Your task to perform on an android device: open sync settings in chrome Image 0: 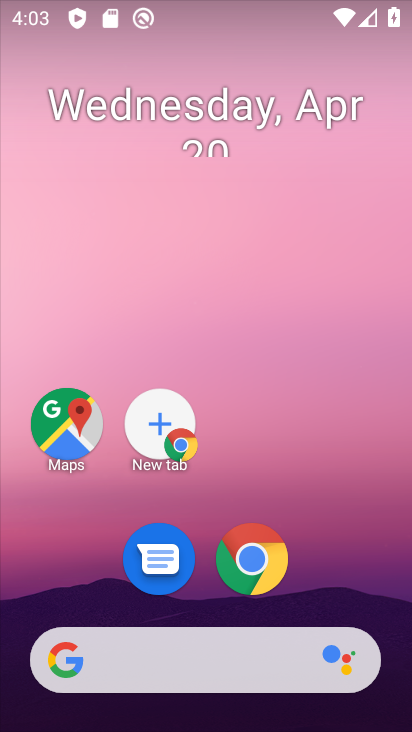
Step 0: click (260, 550)
Your task to perform on an android device: open sync settings in chrome Image 1: 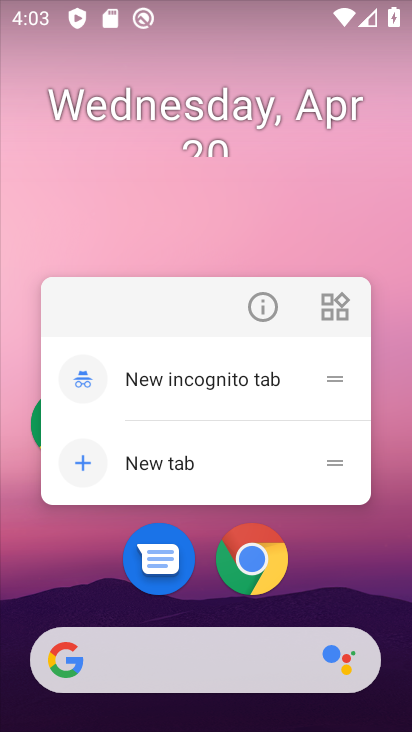
Step 1: click (260, 550)
Your task to perform on an android device: open sync settings in chrome Image 2: 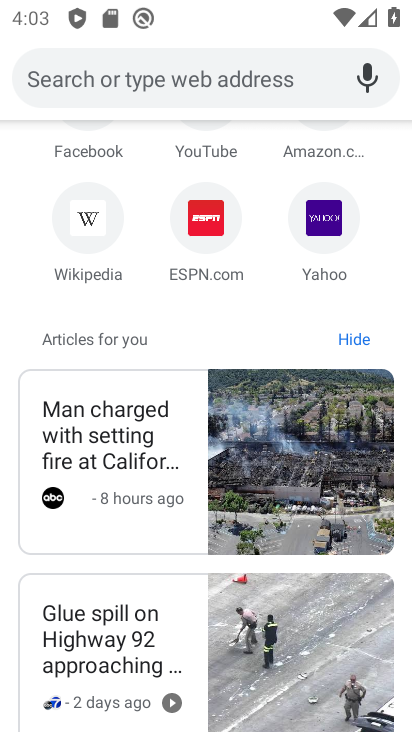
Step 2: drag from (309, 241) to (309, 496)
Your task to perform on an android device: open sync settings in chrome Image 3: 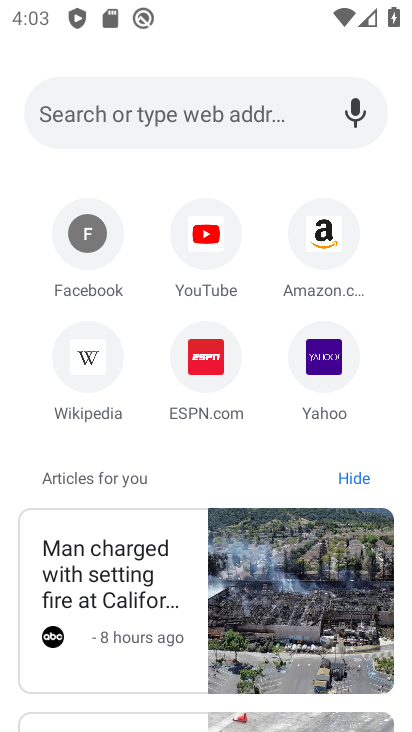
Step 3: drag from (376, 229) to (377, 650)
Your task to perform on an android device: open sync settings in chrome Image 4: 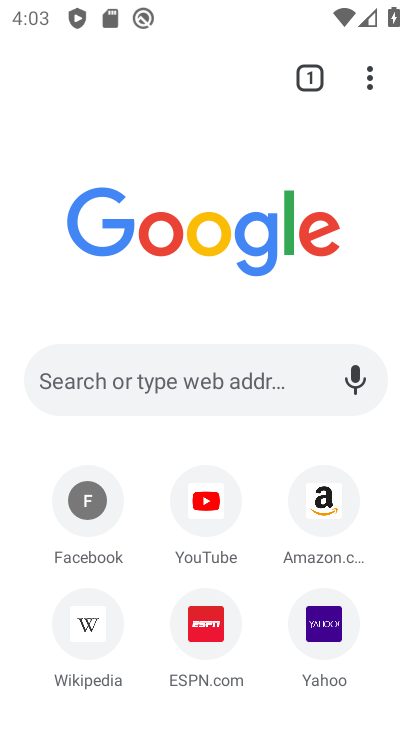
Step 4: click (372, 70)
Your task to perform on an android device: open sync settings in chrome Image 5: 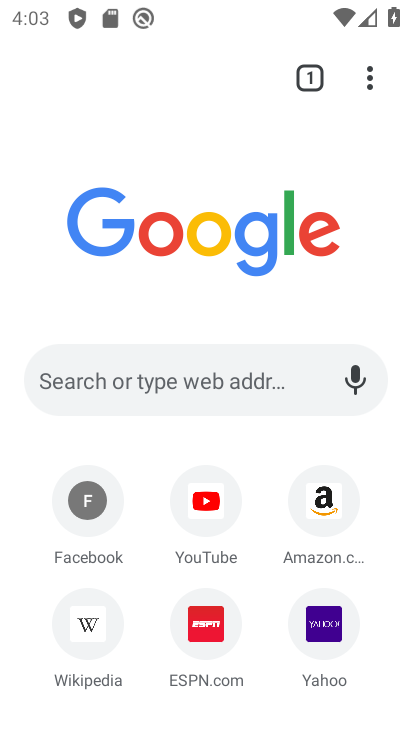
Step 5: click (371, 91)
Your task to perform on an android device: open sync settings in chrome Image 6: 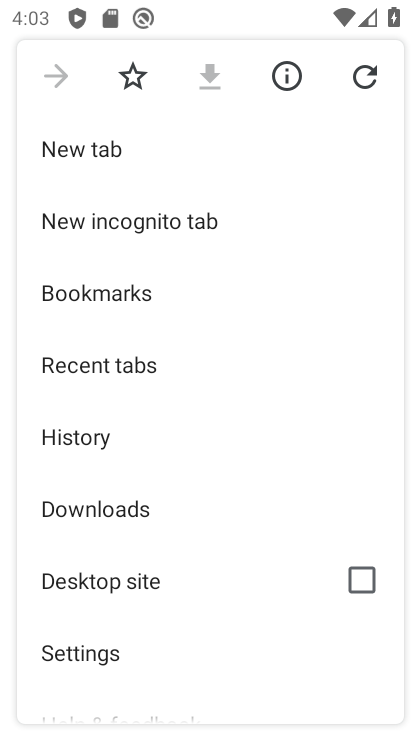
Step 6: click (102, 653)
Your task to perform on an android device: open sync settings in chrome Image 7: 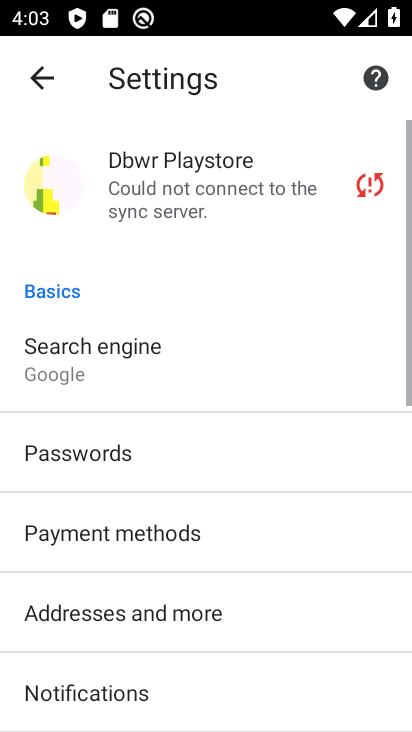
Step 7: drag from (161, 613) to (184, 229)
Your task to perform on an android device: open sync settings in chrome Image 8: 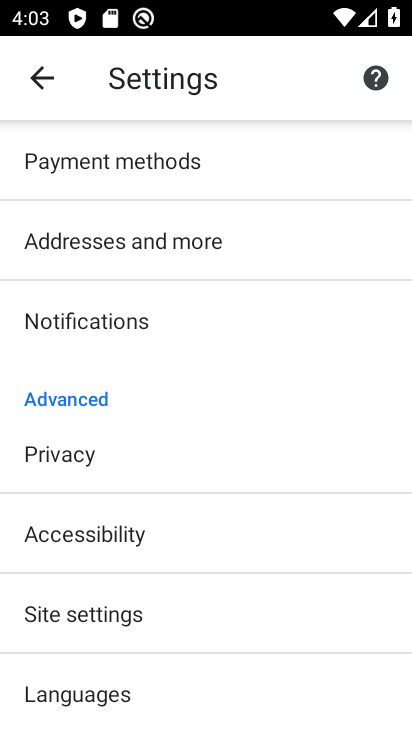
Step 8: drag from (184, 229) to (184, 584)
Your task to perform on an android device: open sync settings in chrome Image 9: 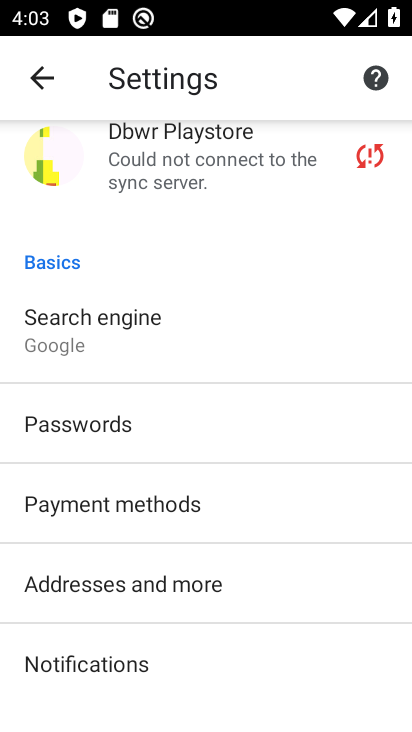
Step 9: click (178, 184)
Your task to perform on an android device: open sync settings in chrome Image 10: 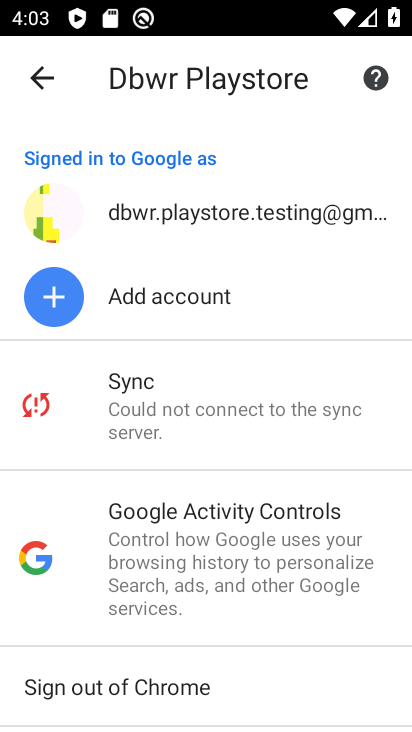
Step 10: click (210, 435)
Your task to perform on an android device: open sync settings in chrome Image 11: 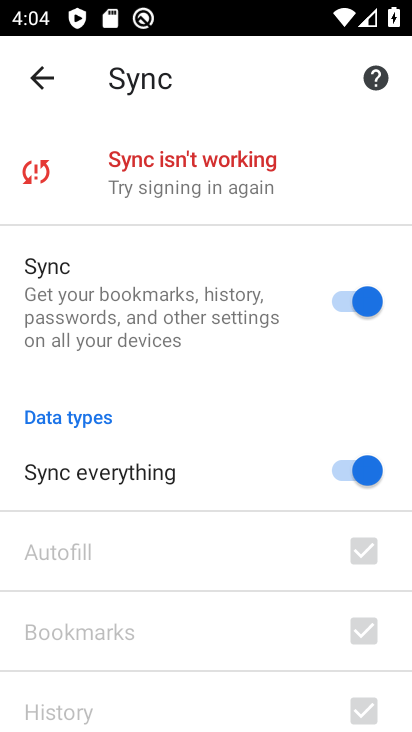
Step 11: task complete